Your task to perform on an android device: Open Yahoo.com Image 0: 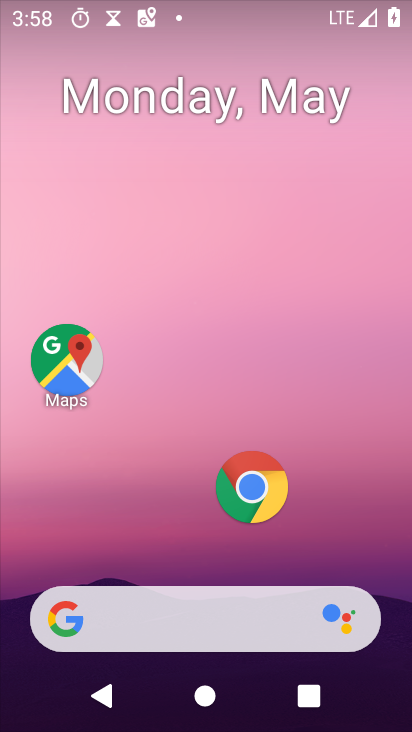
Step 0: click (259, 491)
Your task to perform on an android device: Open Yahoo.com Image 1: 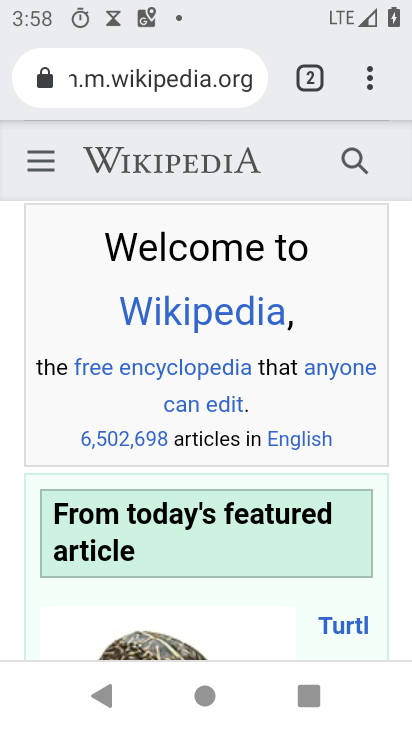
Step 1: click (192, 88)
Your task to perform on an android device: Open Yahoo.com Image 2: 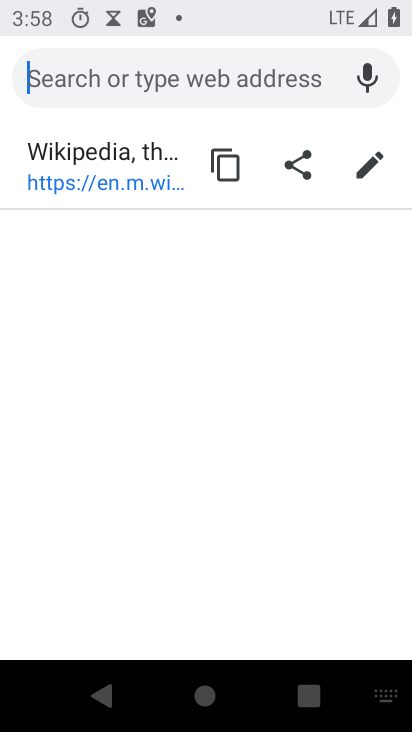
Step 2: type "yahoo.com"
Your task to perform on an android device: Open Yahoo.com Image 3: 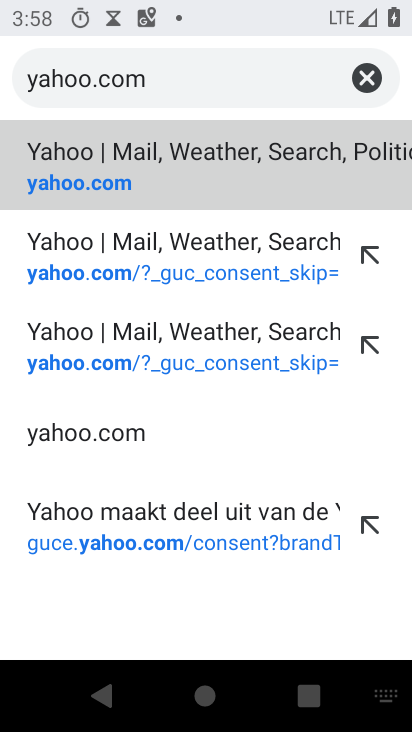
Step 3: click (70, 149)
Your task to perform on an android device: Open Yahoo.com Image 4: 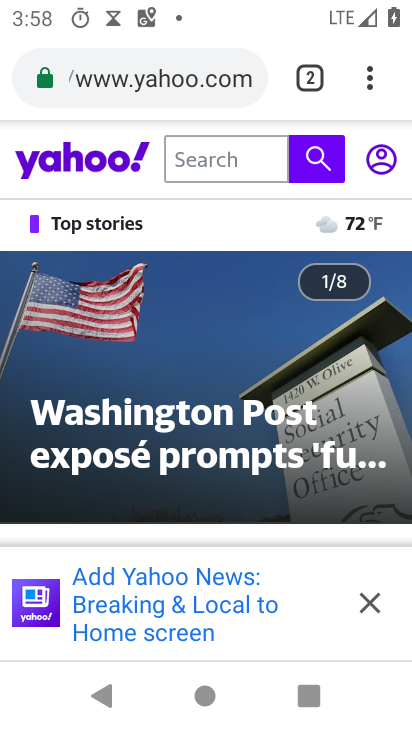
Step 4: task complete